Your task to perform on an android device: Open Google Maps and go to "Timeline" Image 0: 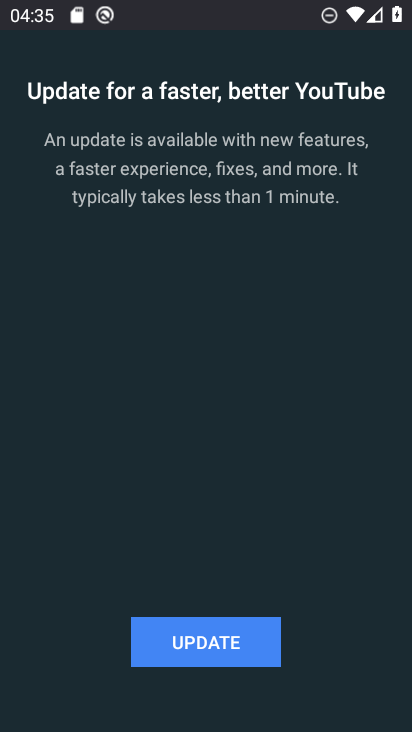
Step 0: drag from (63, 622) to (75, 532)
Your task to perform on an android device: Open Google Maps and go to "Timeline" Image 1: 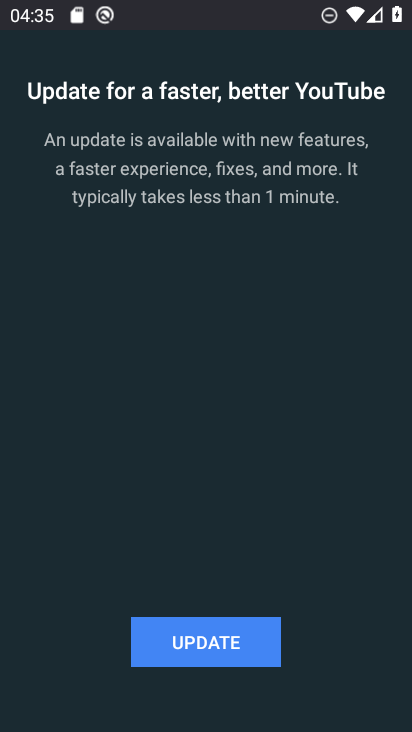
Step 1: press home button
Your task to perform on an android device: Open Google Maps and go to "Timeline" Image 2: 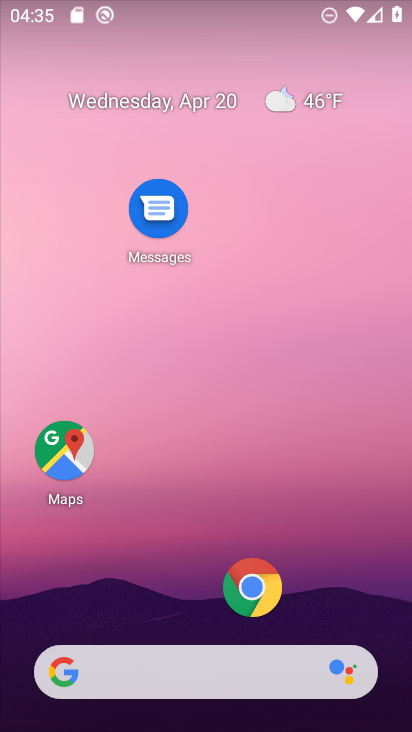
Step 2: click (80, 460)
Your task to perform on an android device: Open Google Maps and go to "Timeline" Image 3: 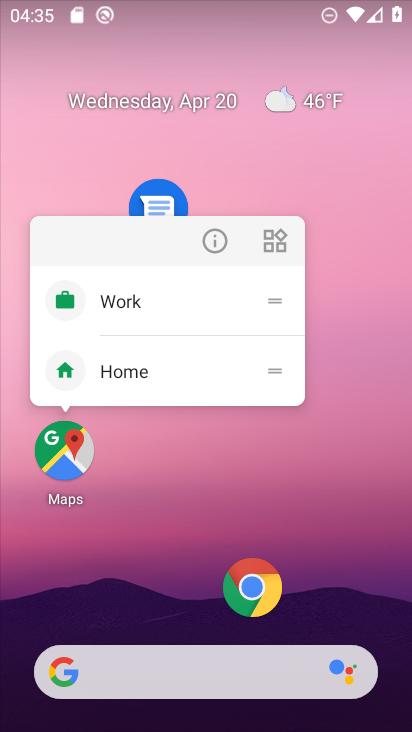
Step 3: click (72, 465)
Your task to perform on an android device: Open Google Maps and go to "Timeline" Image 4: 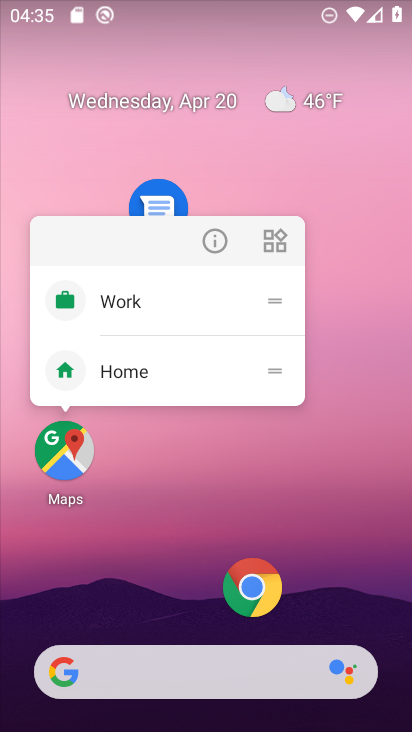
Step 4: click (63, 456)
Your task to perform on an android device: Open Google Maps and go to "Timeline" Image 5: 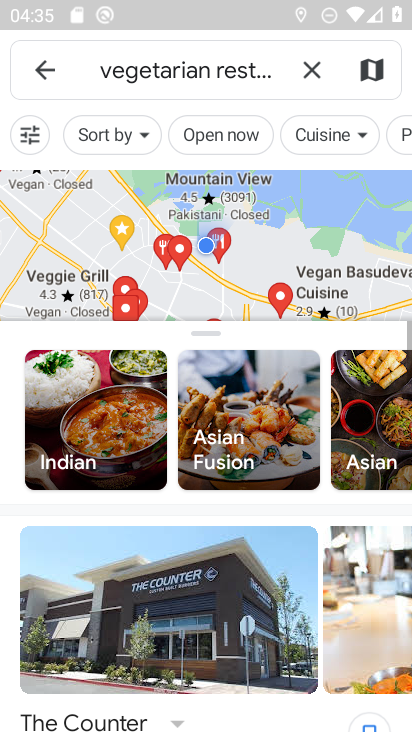
Step 5: click (41, 82)
Your task to perform on an android device: Open Google Maps and go to "Timeline" Image 6: 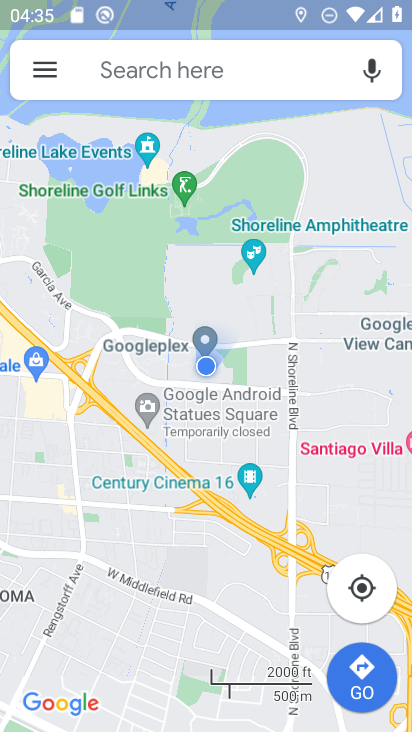
Step 6: click (41, 82)
Your task to perform on an android device: Open Google Maps and go to "Timeline" Image 7: 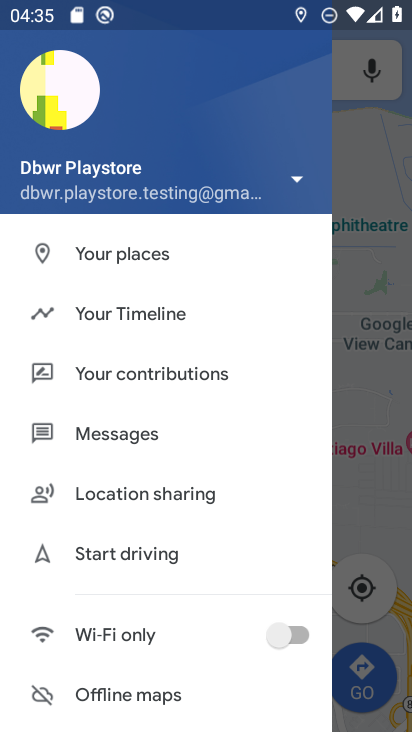
Step 7: click (148, 317)
Your task to perform on an android device: Open Google Maps and go to "Timeline" Image 8: 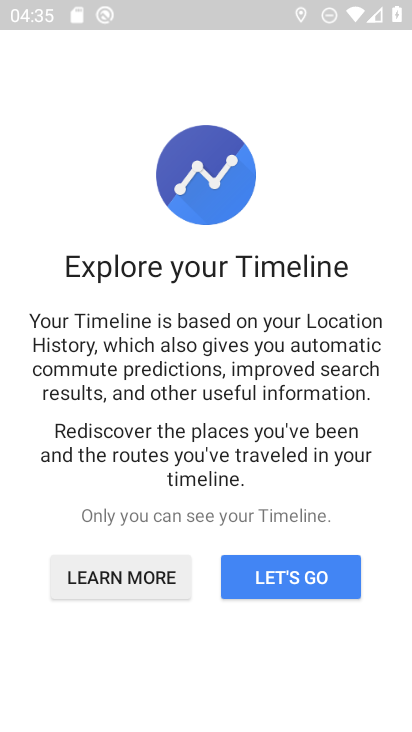
Step 8: click (286, 570)
Your task to perform on an android device: Open Google Maps and go to "Timeline" Image 9: 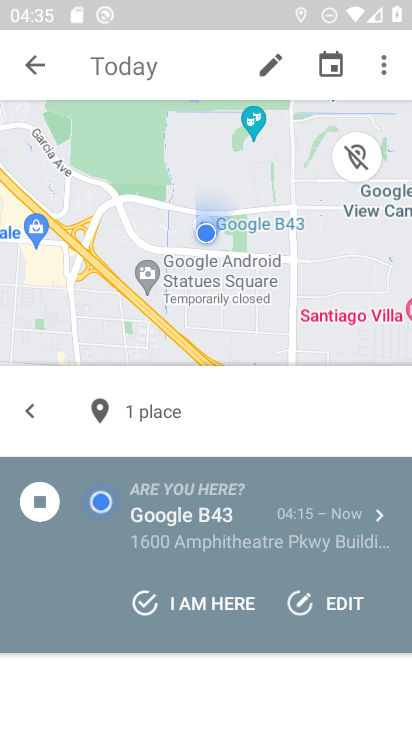
Step 9: task complete